Your task to perform on an android device: Show me popular videos on Youtube Image 0: 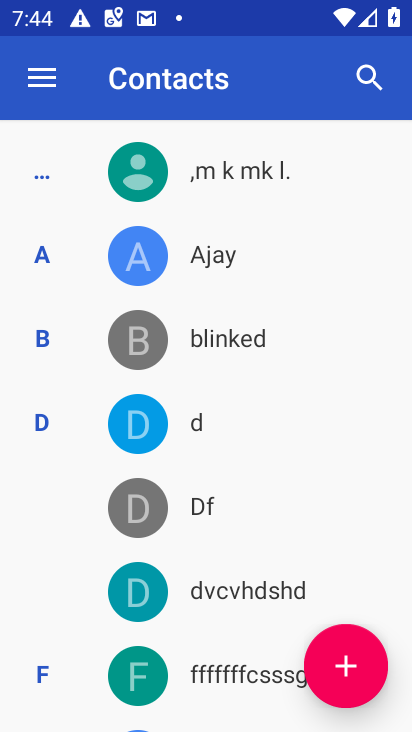
Step 0: press home button
Your task to perform on an android device: Show me popular videos on Youtube Image 1: 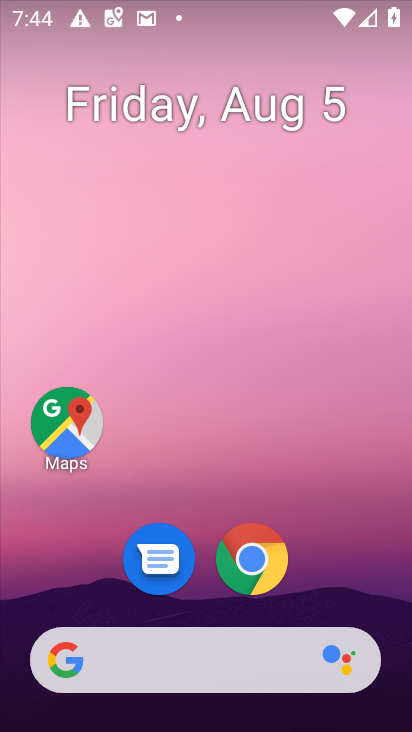
Step 1: drag from (194, 598) to (272, 4)
Your task to perform on an android device: Show me popular videos on Youtube Image 2: 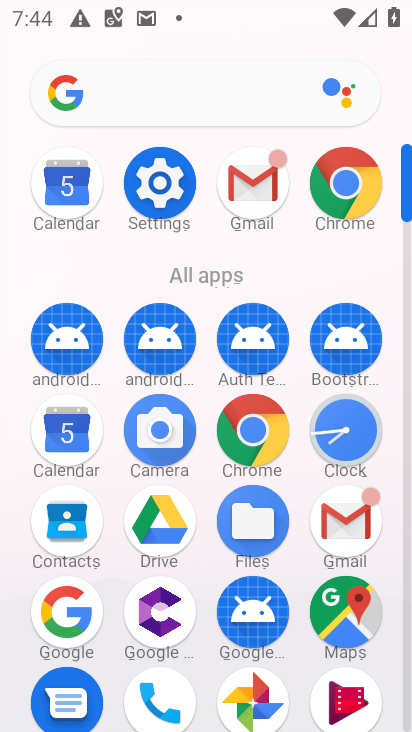
Step 2: drag from (266, 594) to (288, 213)
Your task to perform on an android device: Show me popular videos on Youtube Image 3: 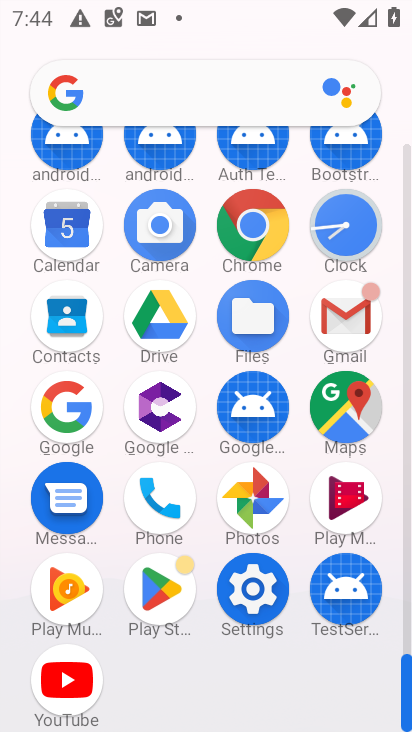
Step 3: click (57, 676)
Your task to perform on an android device: Show me popular videos on Youtube Image 4: 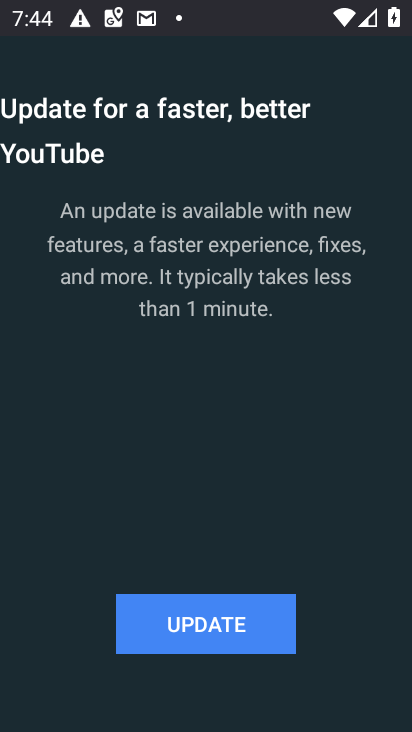
Step 4: click (205, 637)
Your task to perform on an android device: Show me popular videos on Youtube Image 5: 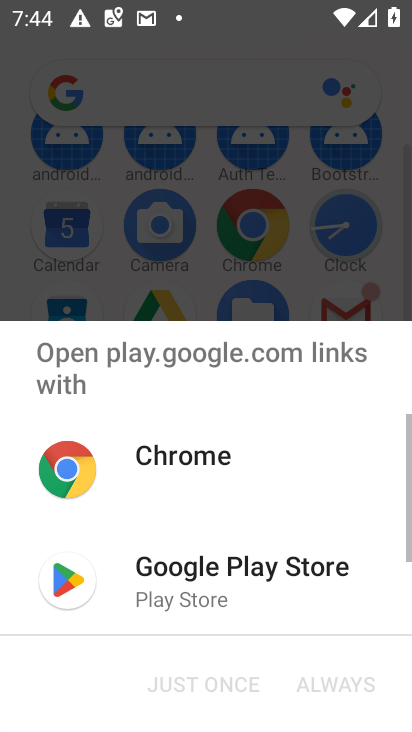
Step 5: click (204, 594)
Your task to perform on an android device: Show me popular videos on Youtube Image 6: 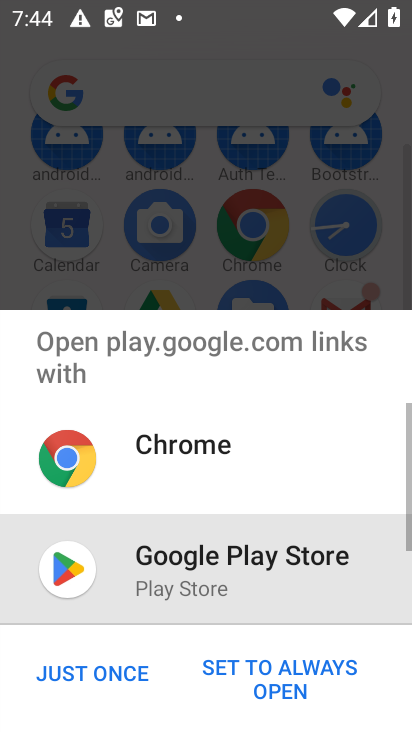
Step 6: click (79, 679)
Your task to perform on an android device: Show me popular videos on Youtube Image 7: 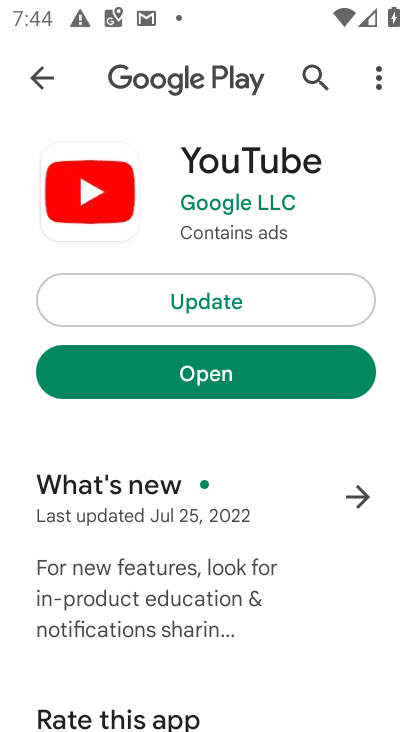
Step 7: click (243, 299)
Your task to perform on an android device: Show me popular videos on Youtube Image 8: 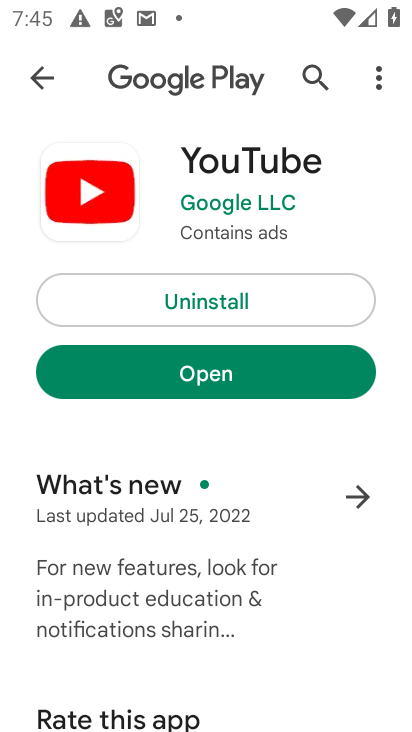
Step 8: click (235, 380)
Your task to perform on an android device: Show me popular videos on Youtube Image 9: 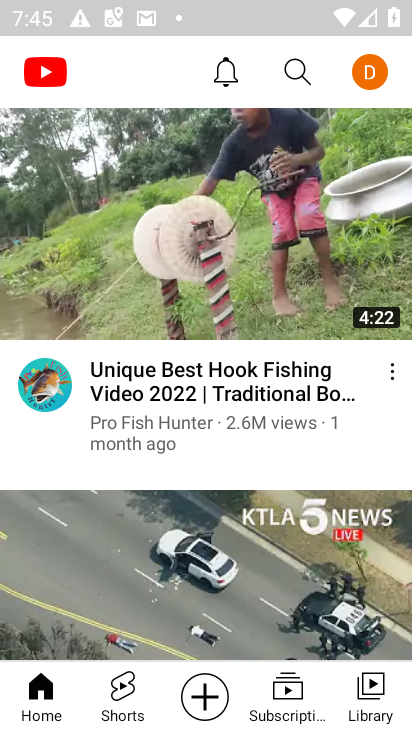
Step 9: drag from (139, 249) to (117, 417)
Your task to perform on an android device: Show me popular videos on Youtube Image 10: 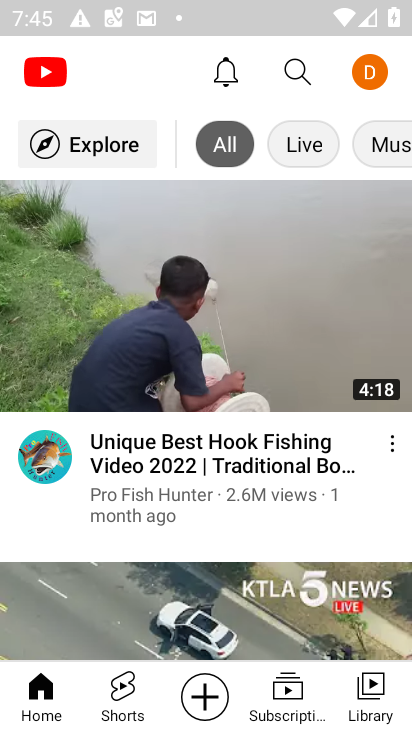
Step 10: drag from (150, 173) to (153, 332)
Your task to perform on an android device: Show me popular videos on Youtube Image 11: 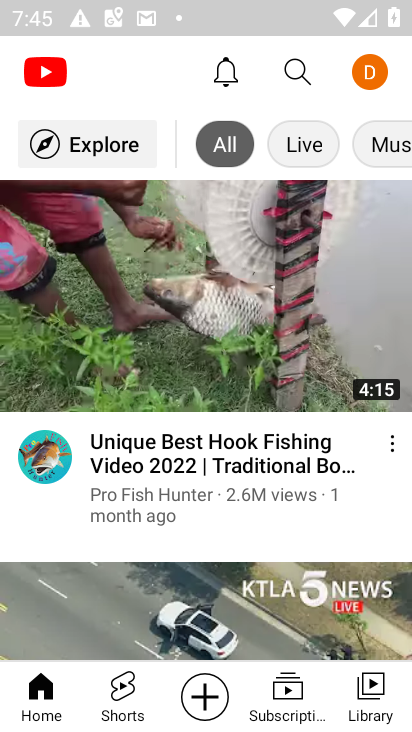
Step 11: click (60, 138)
Your task to perform on an android device: Show me popular videos on Youtube Image 12: 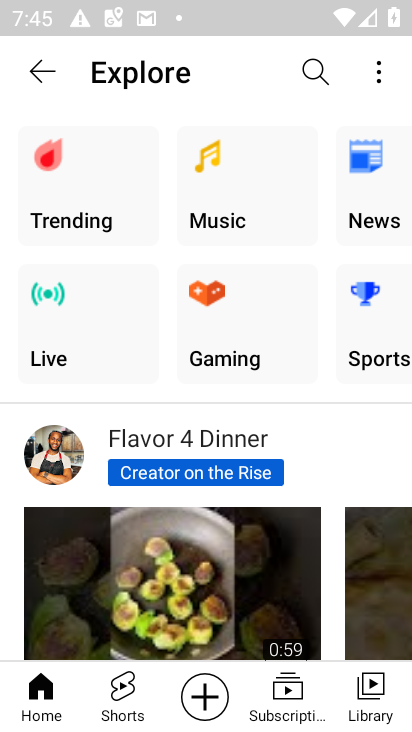
Step 12: click (63, 172)
Your task to perform on an android device: Show me popular videos on Youtube Image 13: 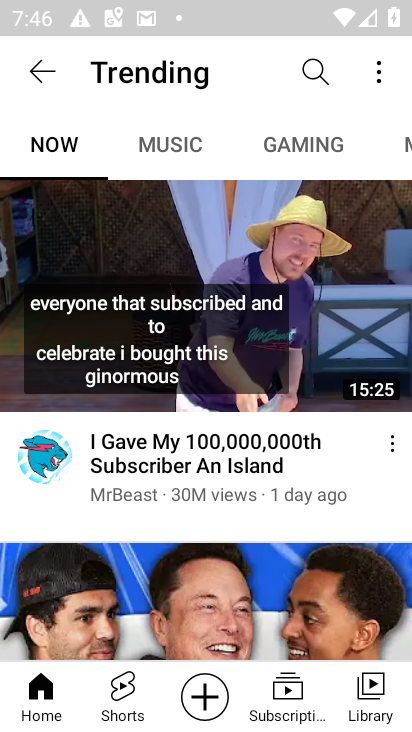
Step 13: task complete